Your task to perform on an android device: change timer sound Image 0: 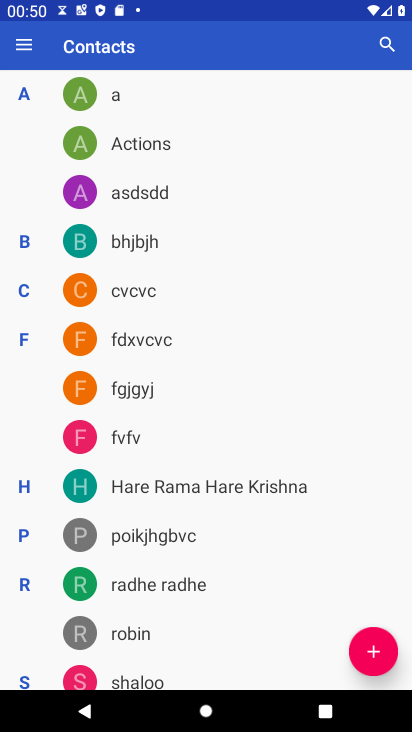
Step 0: press back button
Your task to perform on an android device: change timer sound Image 1: 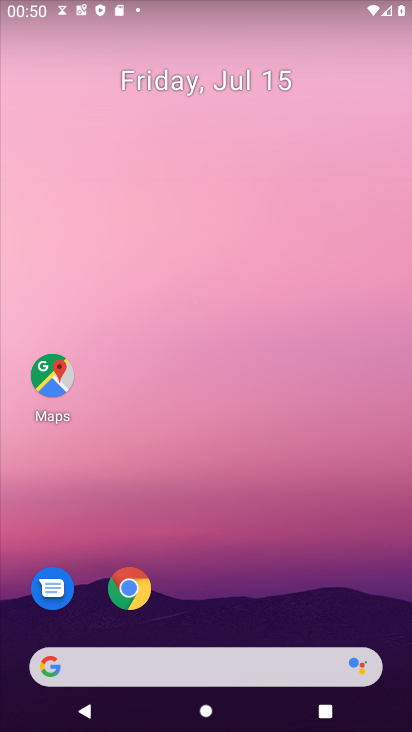
Step 1: drag from (169, 572) to (256, 0)
Your task to perform on an android device: change timer sound Image 2: 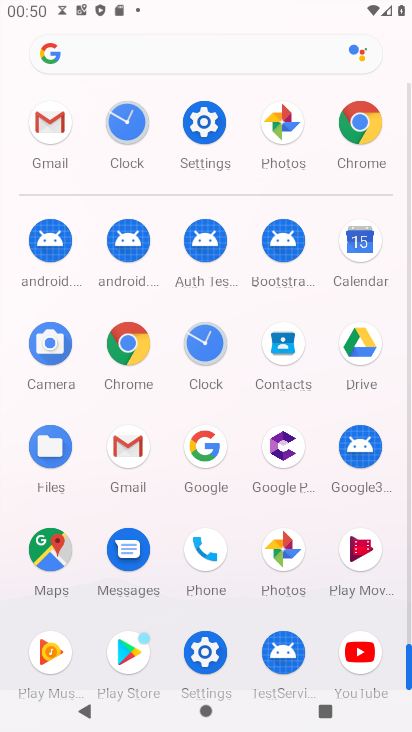
Step 2: click (208, 335)
Your task to perform on an android device: change timer sound Image 3: 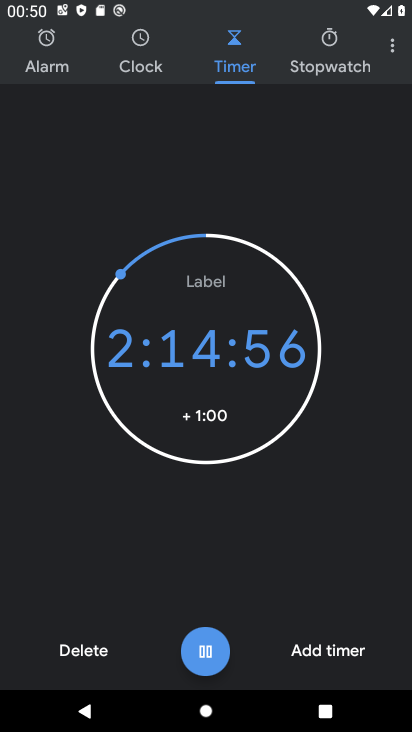
Step 3: click (394, 41)
Your task to perform on an android device: change timer sound Image 4: 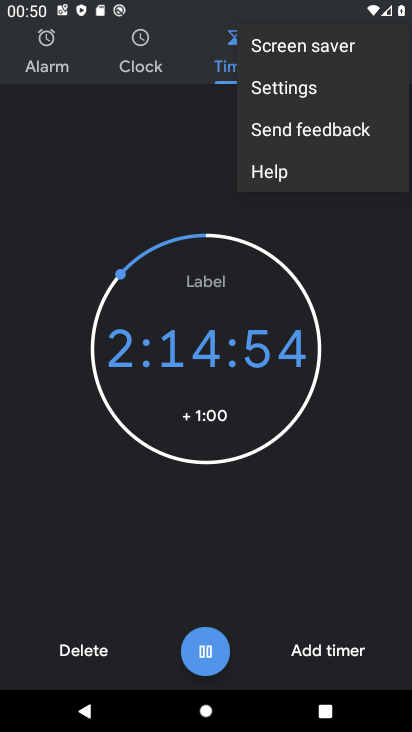
Step 4: click (281, 90)
Your task to perform on an android device: change timer sound Image 5: 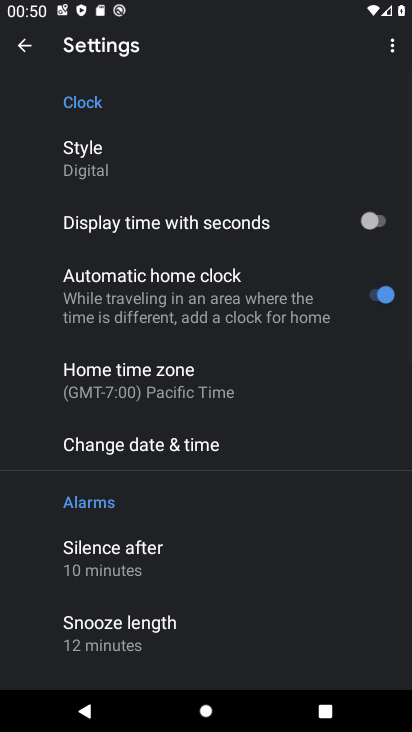
Step 5: drag from (129, 590) to (257, 53)
Your task to perform on an android device: change timer sound Image 6: 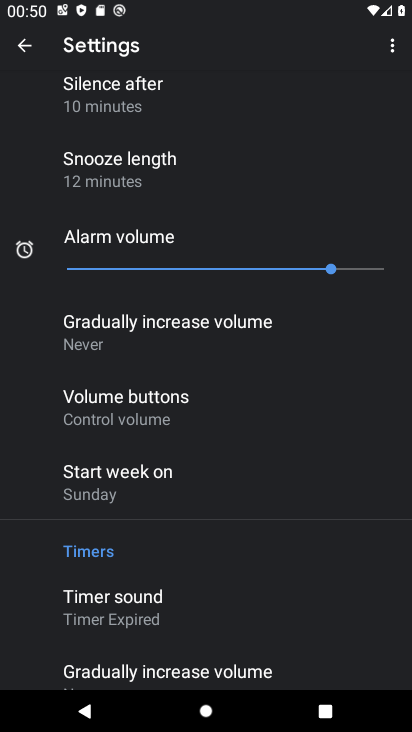
Step 6: click (162, 624)
Your task to perform on an android device: change timer sound Image 7: 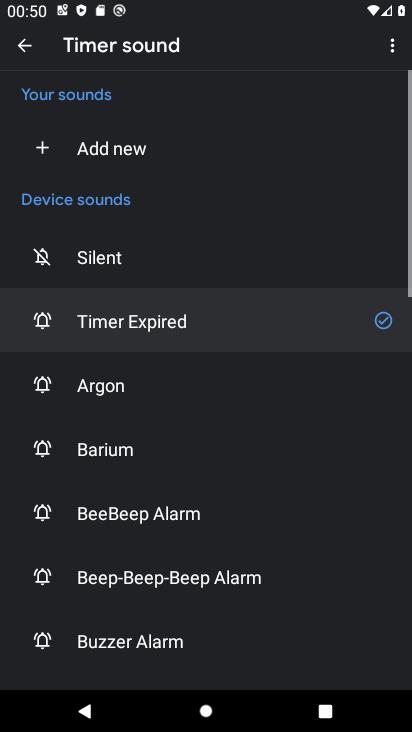
Step 7: click (105, 388)
Your task to perform on an android device: change timer sound Image 8: 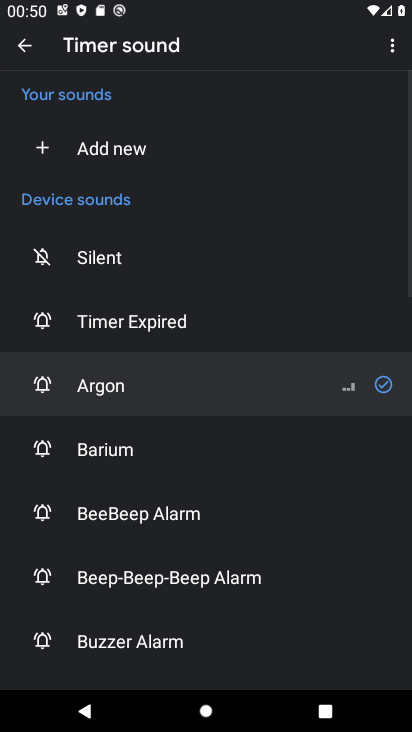
Step 8: task complete